Your task to perform on an android device: Go to Wikipedia Image 0: 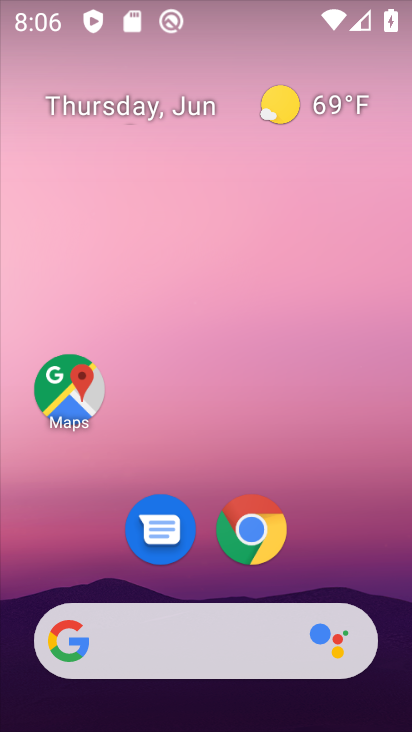
Step 0: click (242, 536)
Your task to perform on an android device: Go to Wikipedia Image 1: 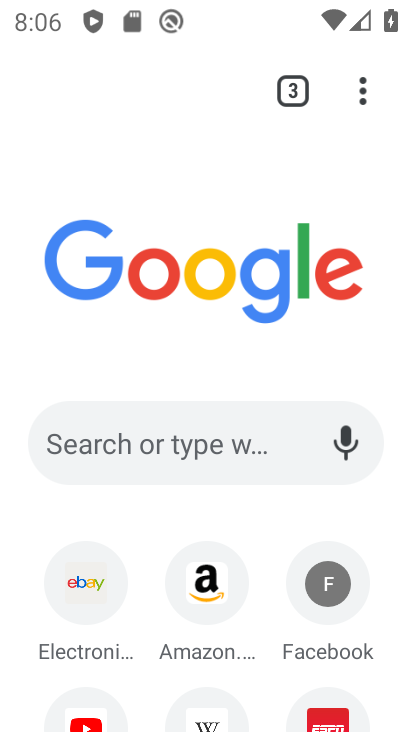
Step 1: click (199, 716)
Your task to perform on an android device: Go to Wikipedia Image 2: 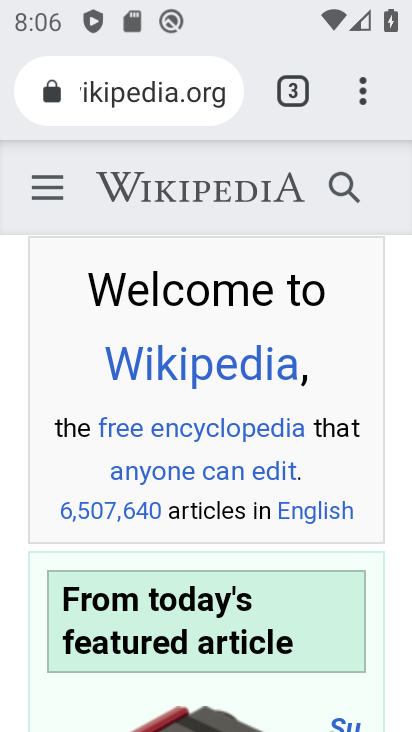
Step 2: task complete